Your task to perform on an android device: turn on the 24-hour format for clock Image 0: 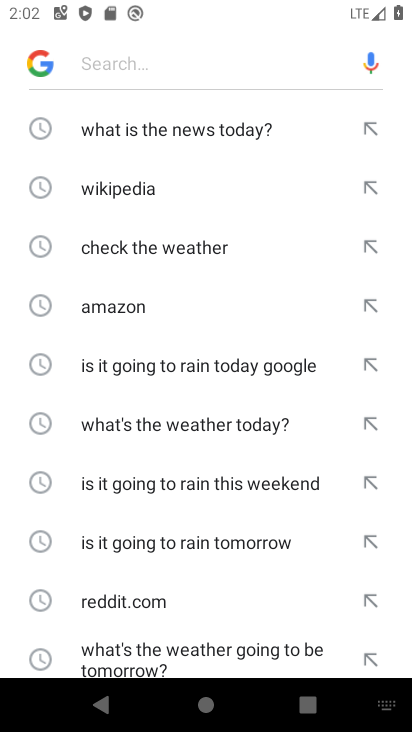
Step 0: drag from (198, 597) to (320, 47)
Your task to perform on an android device: turn on the 24-hour format for clock Image 1: 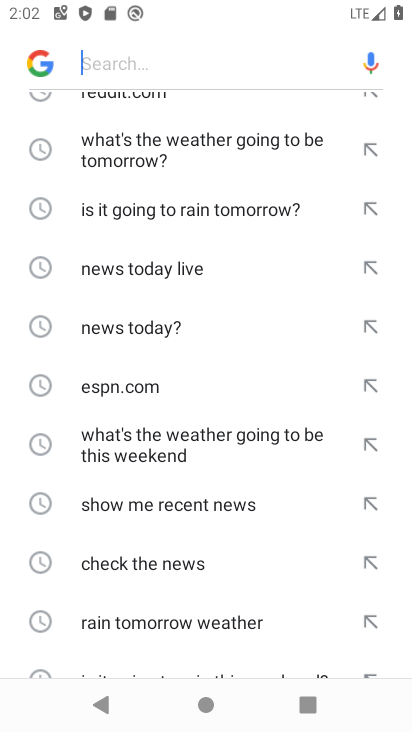
Step 1: press home button
Your task to perform on an android device: turn on the 24-hour format for clock Image 2: 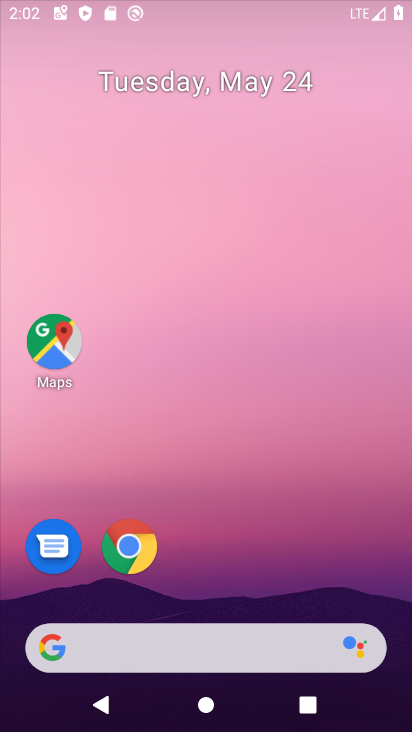
Step 2: click (215, 125)
Your task to perform on an android device: turn on the 24-hour format for clock Image 3: 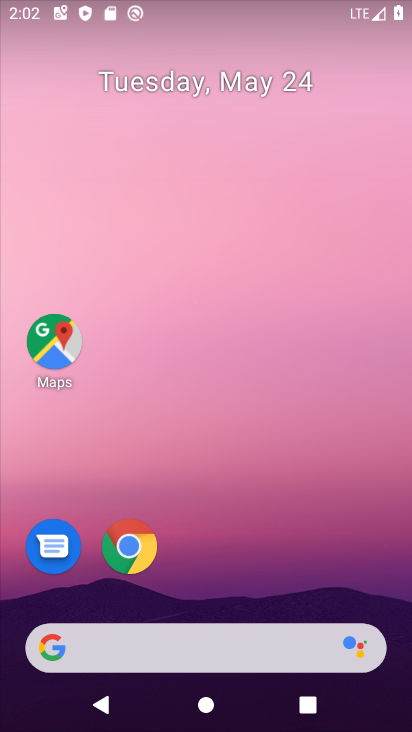
Step 3: drag from (209, 578) to (262, 7)
Your task to perform on an android device: turn on the 24-hour format for clock Image 4: 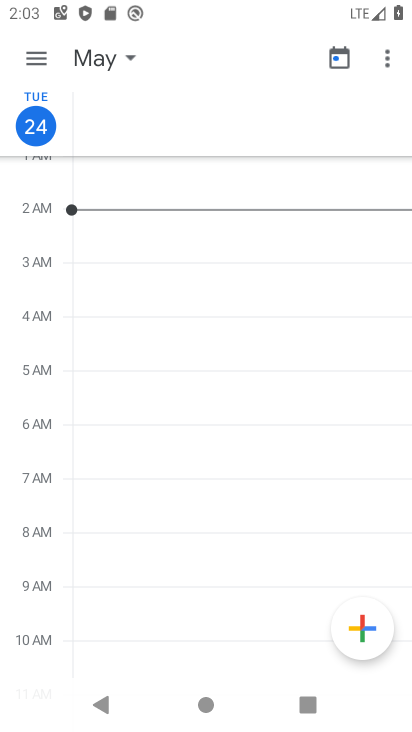
Step 4: press home button
Your task to perform on an android device: turn on the 24-hour format for clock Image 5: 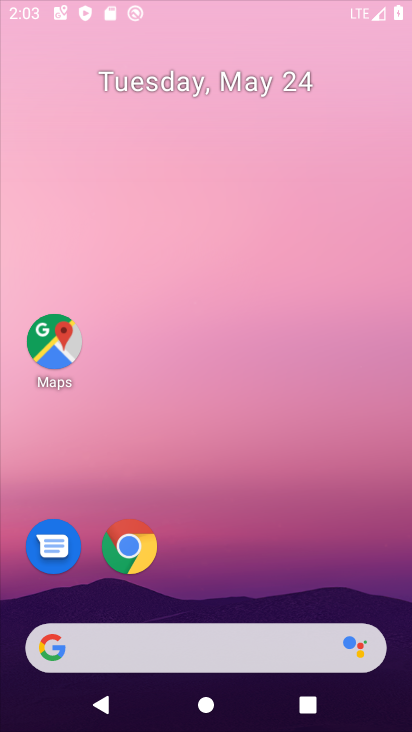
Step 5: drag from (198, 590) to (263, 7)
Your task to perform on an android device: turn on the 24-hour format for clock Image 6: 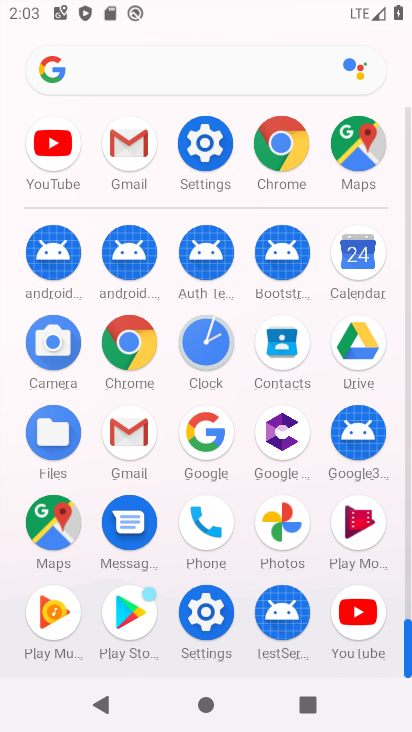
Step 6: click (205, 341)
Your task to perform on an android device: turn on the 24-hour format for clock Image 7: 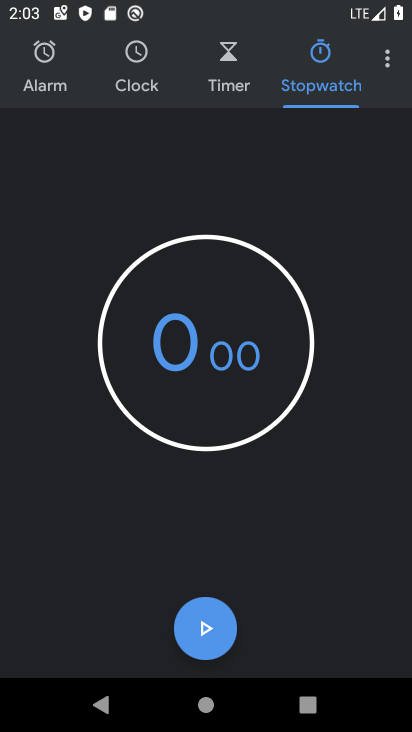
Step 7: click (392, 52)
Your task to perform on an android device: turn on the 24-hour format for clock Image 8: 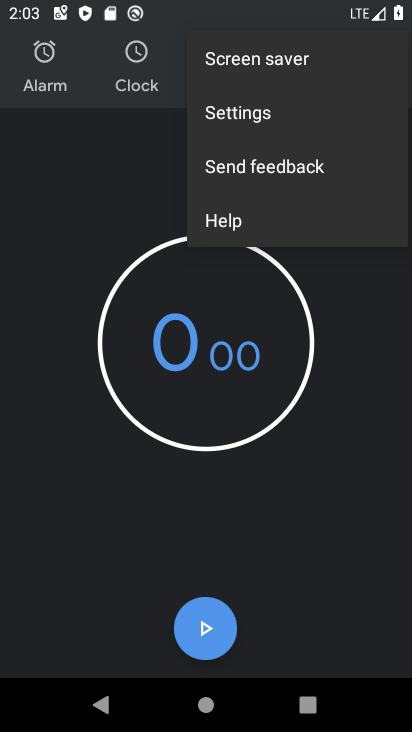
Step 8: click (233, 108)
Your task to perform on an android device: turn on the 24-hour format for clock Image 9: 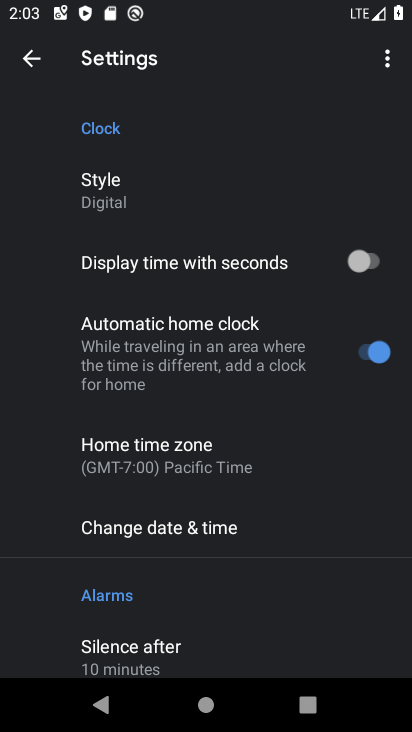
Step 9: drag from (238, 495) to (304, 221)
Your task to perform on an android device: turn on the 24-hour format for clock Image 10: 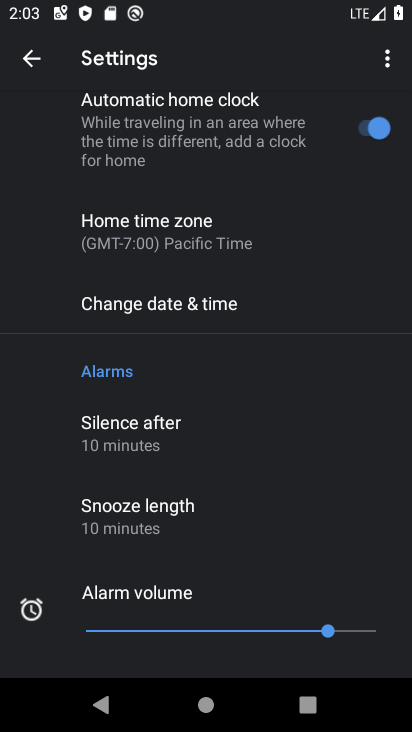
Step 10: drag from (228, 226) to (241, 545)
Your task to perform on an android device: turn on the 24-hour format for clock Image 11: 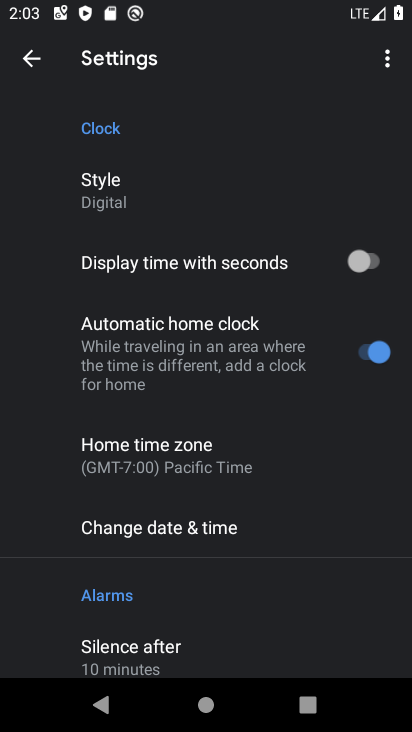
Step 11: drag from (204, 551) to (258, 141)
Your task to perform on an android device: turn on the 24-hour format for clock Image 12: 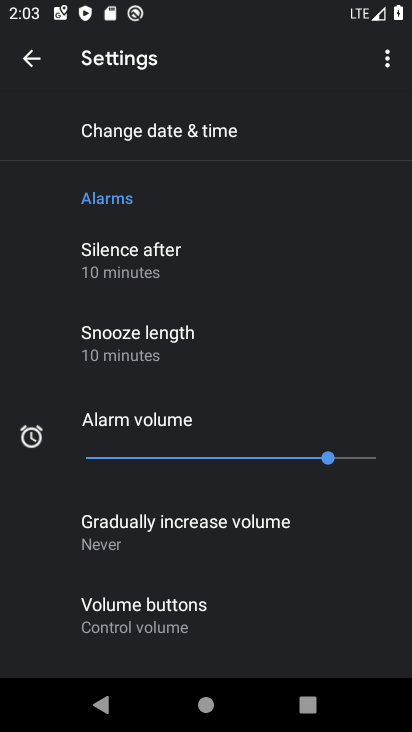
Step 12: drag from (242, 569) to (272, 217)
Your task to perform on an android device: turn on the 24-hour format for clock Image 13: 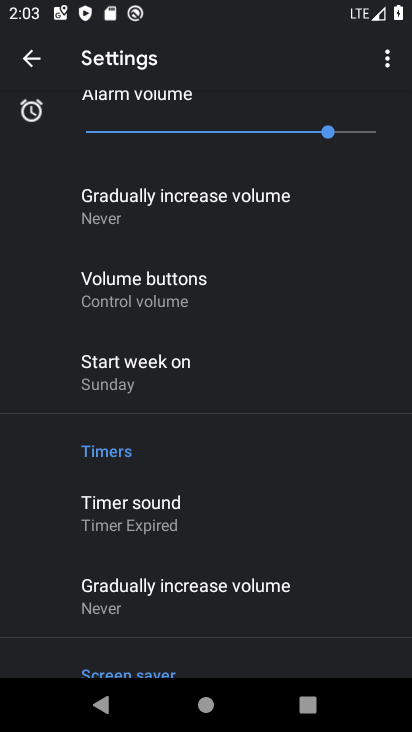
Step 13: drag from (211, 279) to (307, 671)
Your task to perform on an android device: turn on the 24-hour format for clock Image 14: 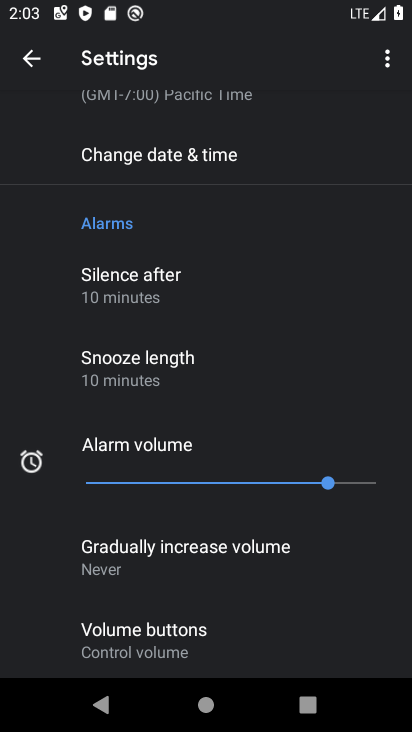
Step 14: drag from (185, 170) to (304, 560)
Your task to perform on an android device: turn on the 24-hour format for clock Image 15: 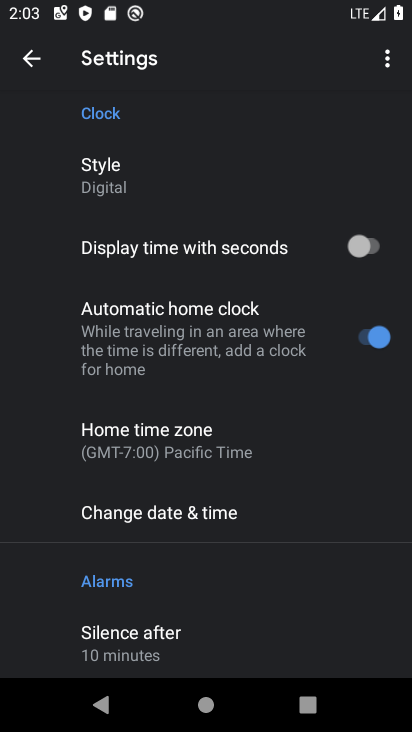
Step 15: click (198, 519)
Your task to perform on an android device: turn on the 24-hour format for clock Image 16: 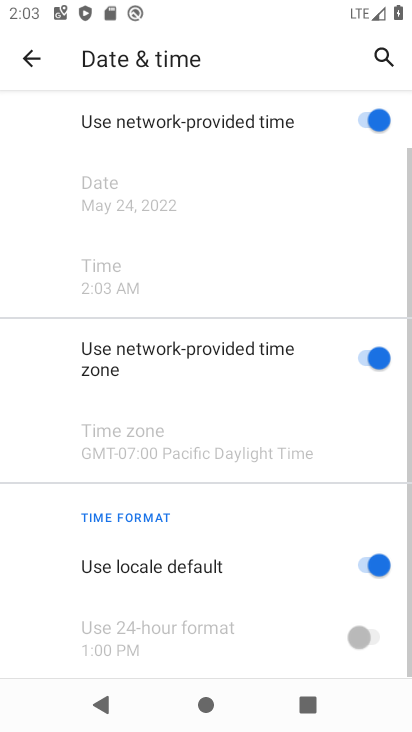
Step 16: drag from (229, 527) to (362, 140)
Your task to perform on an android device: turn on the 24-hour format for clock Image 17: 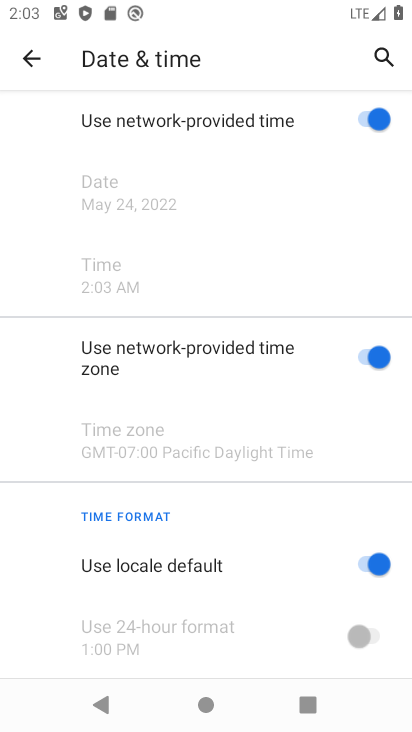
Step 17: click (379, 554)
Your task to perform on an android device: turn on the 24-hour format for clock Image 18: 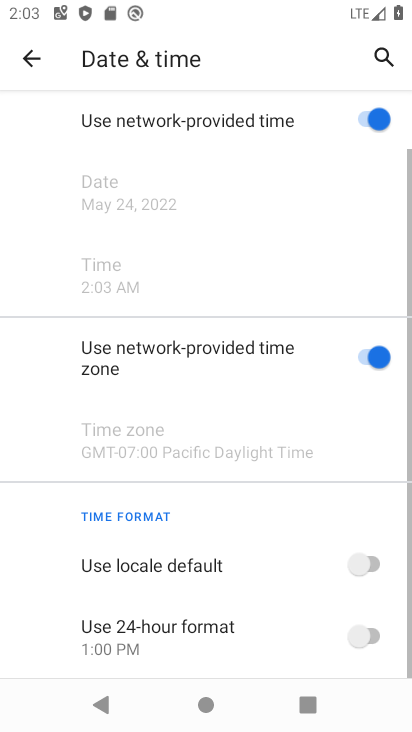
Step 18: click (355, 638)
Your task to perform on an android device: turn on the 24-hour format for clock Image 19: 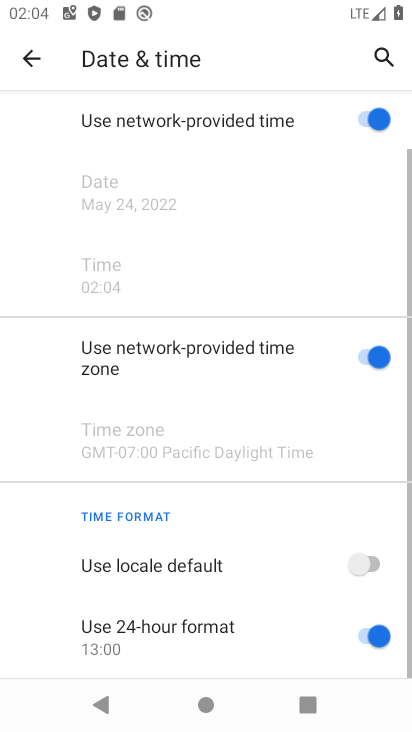
Step 19: task complete